Your task to perform on an android device: Open Youtube and go to "Your channel" Image 0: 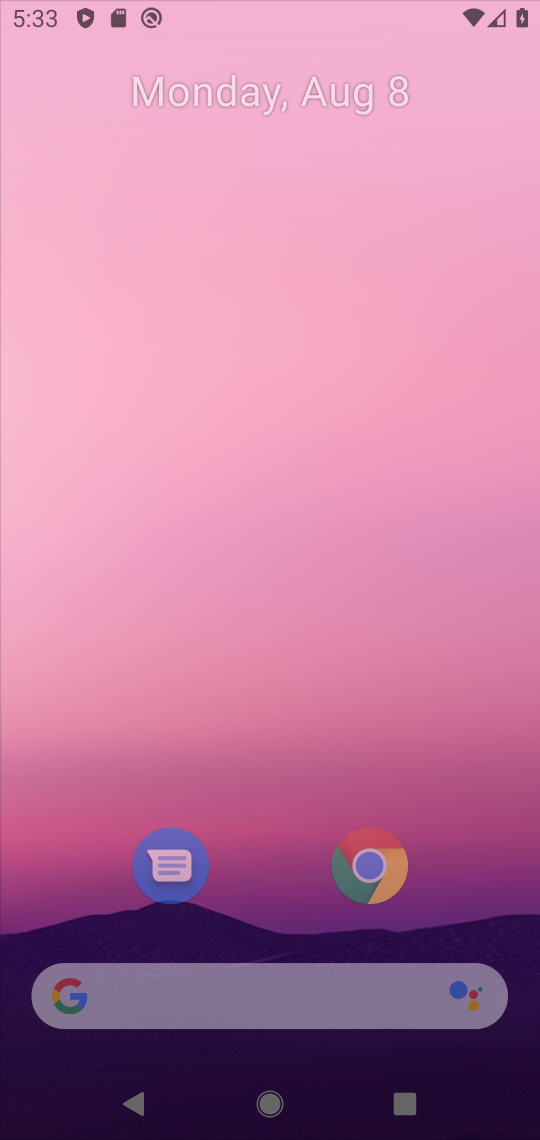
Step 0: press home button
Your task to perform on an android device: Open Youtube and go to "Your channel" Image 1: 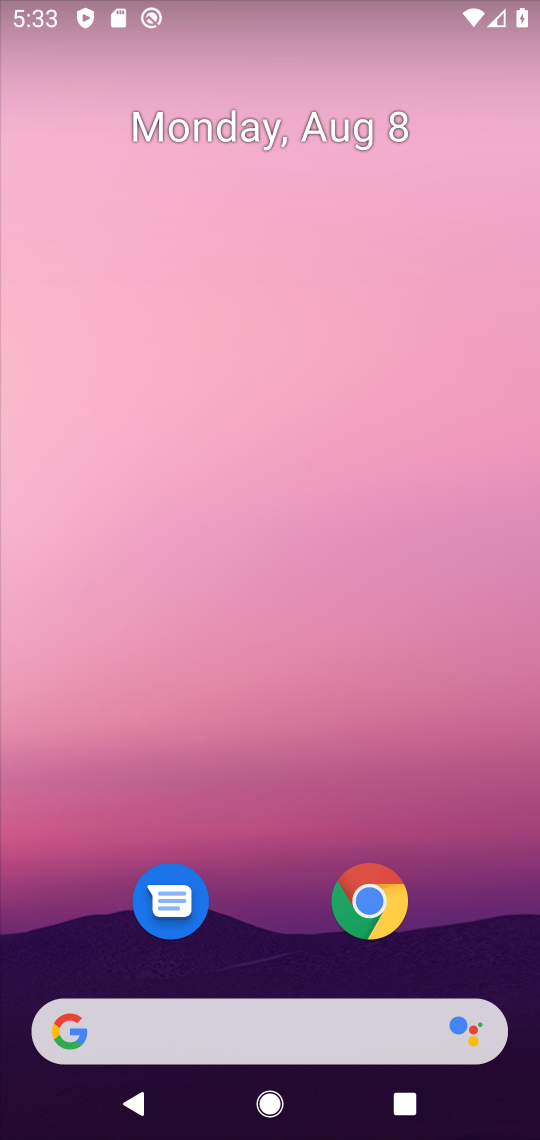
Step 1: drag from (480, 898) to (313, 5)
Your task to perform on an android device: Open Youtube and go to "Your channel" Image 2: 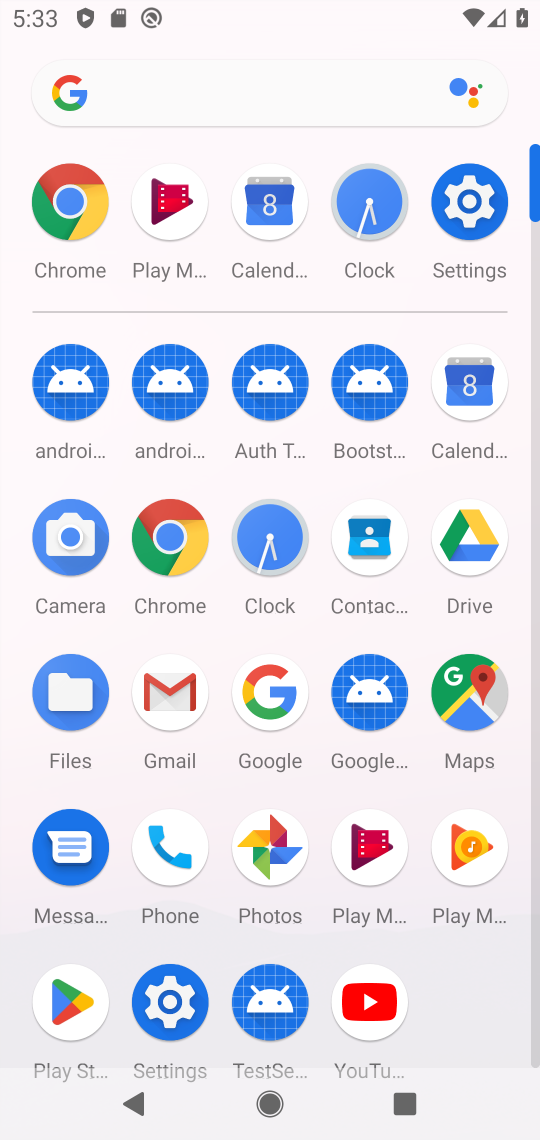
Step 2: click (369, 996)
Your task to perform on an android device: Open Youtube and go to "Your channel" Image 3: 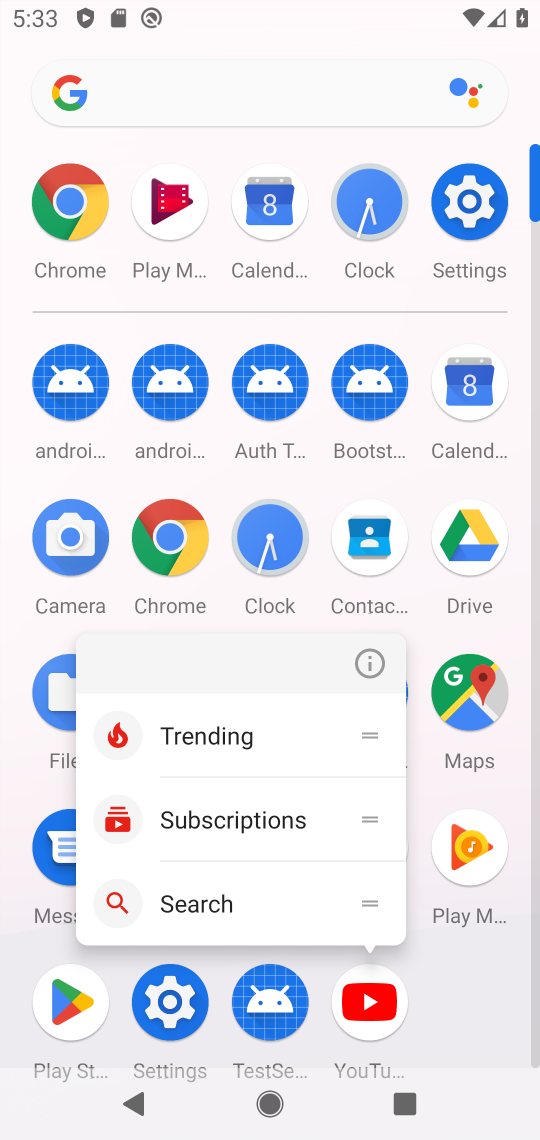
Step 3: click (371, 1017)
Your task to perform on an android device: Open Youtube and go to "Your channel" Image 4: 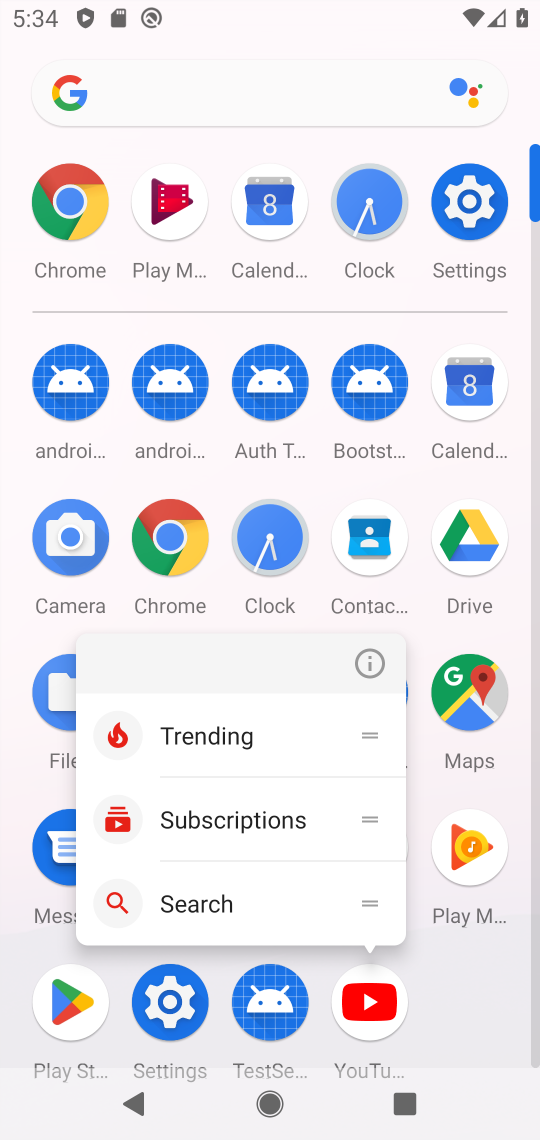
Step 4: click (371, 1017)
Your task to perform on an android device: Open Youtube and go to "Your channel" Image 5: 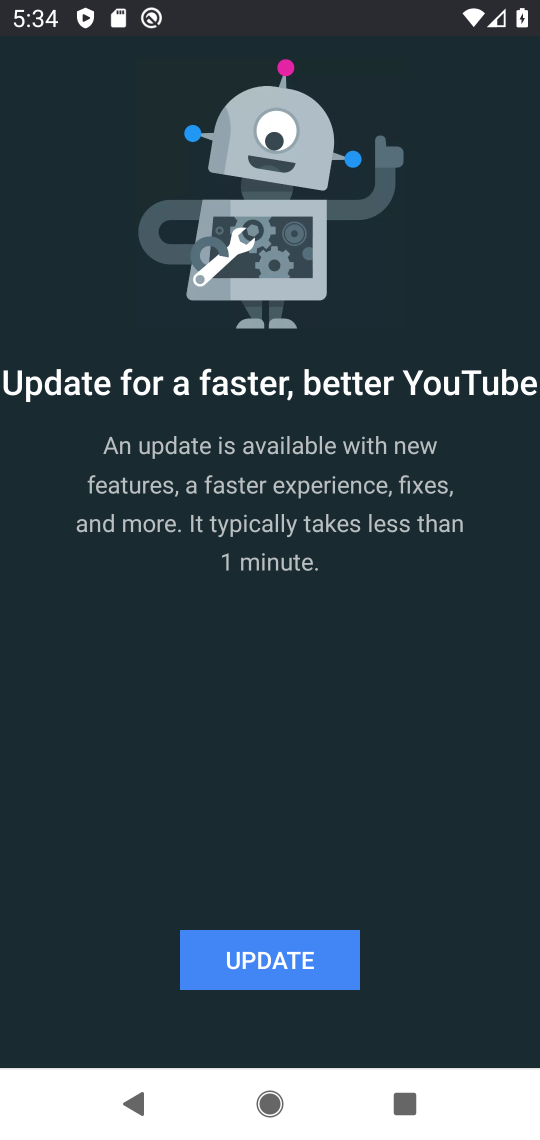
Step 5: click (290, 963)
Your task to perform on an android device: Open Youtube and go to "Your channel" Image 6: 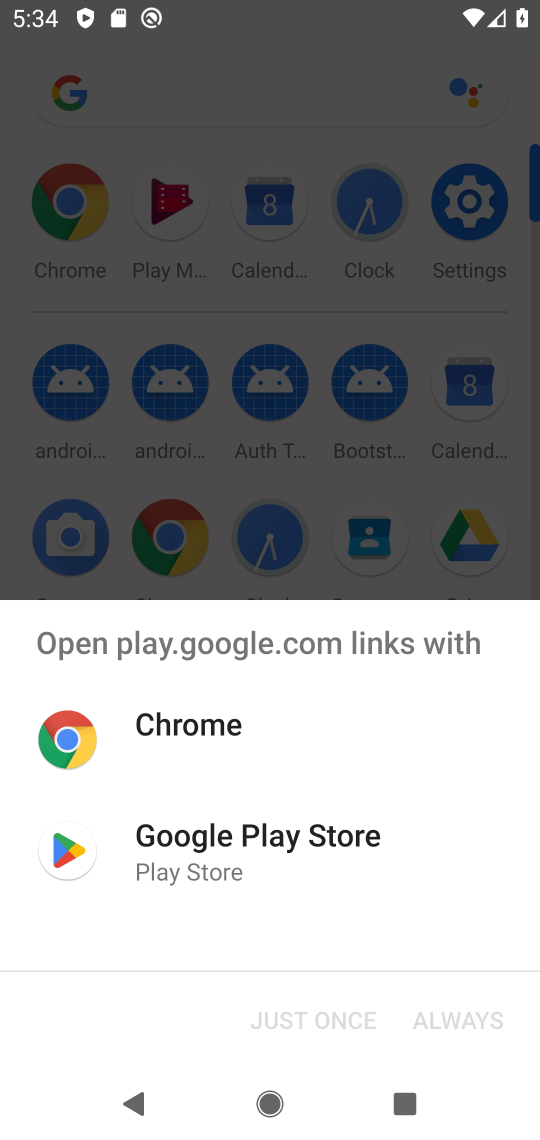
Step 6: click (459, 864)
Your task to perform on an android device: Open Youtube and go to "Your channel" Image 7: 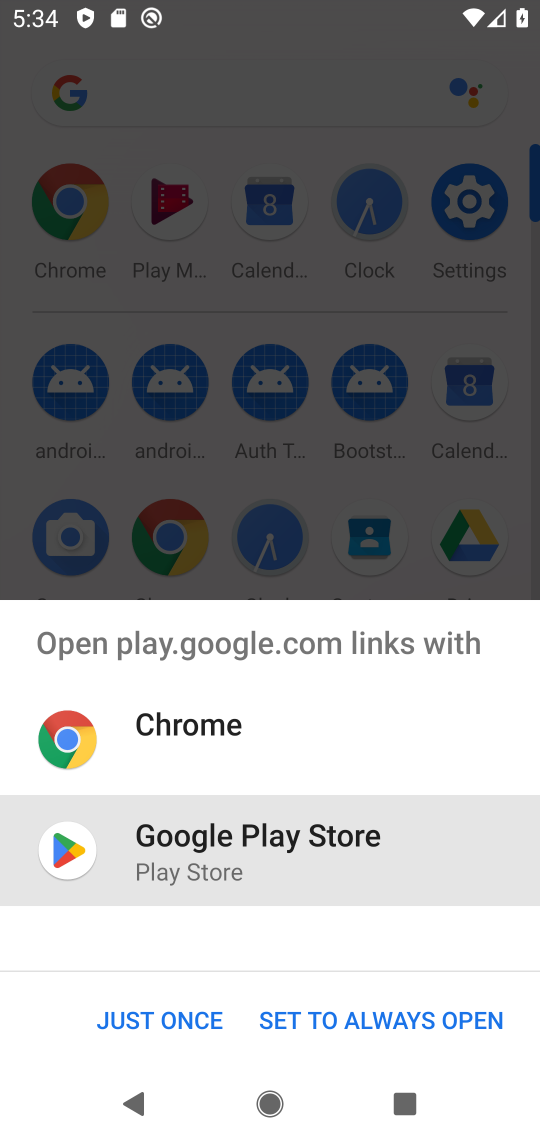
Step 7: click (179, 1036)
Your task to perform on an android device: Open Youtube and go to "Your channel" Image 8: 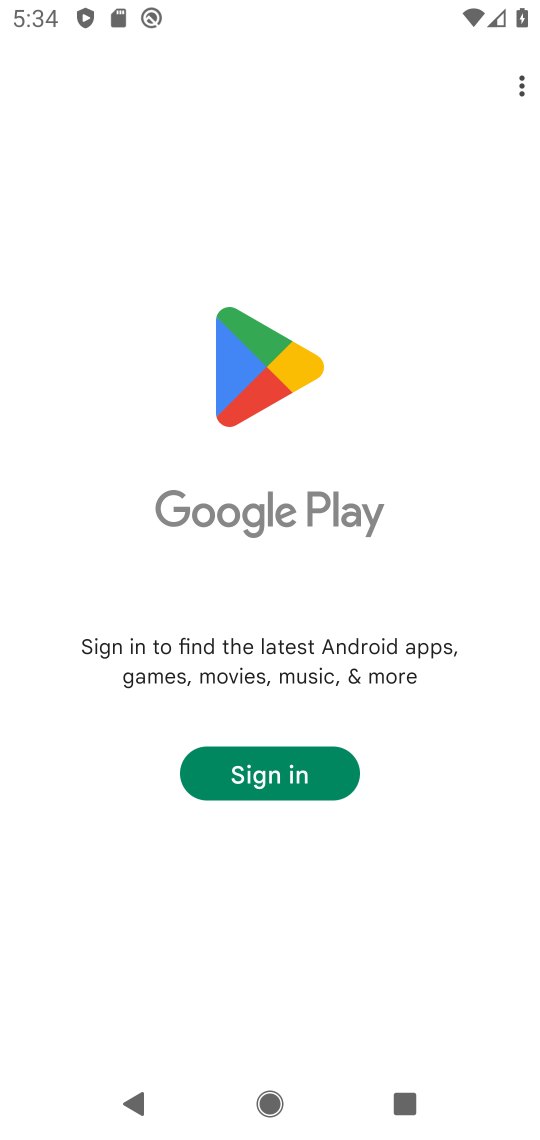
Step 8: task complete